Your task to perform on an android device: install app "Nova Launcher" Image 0: 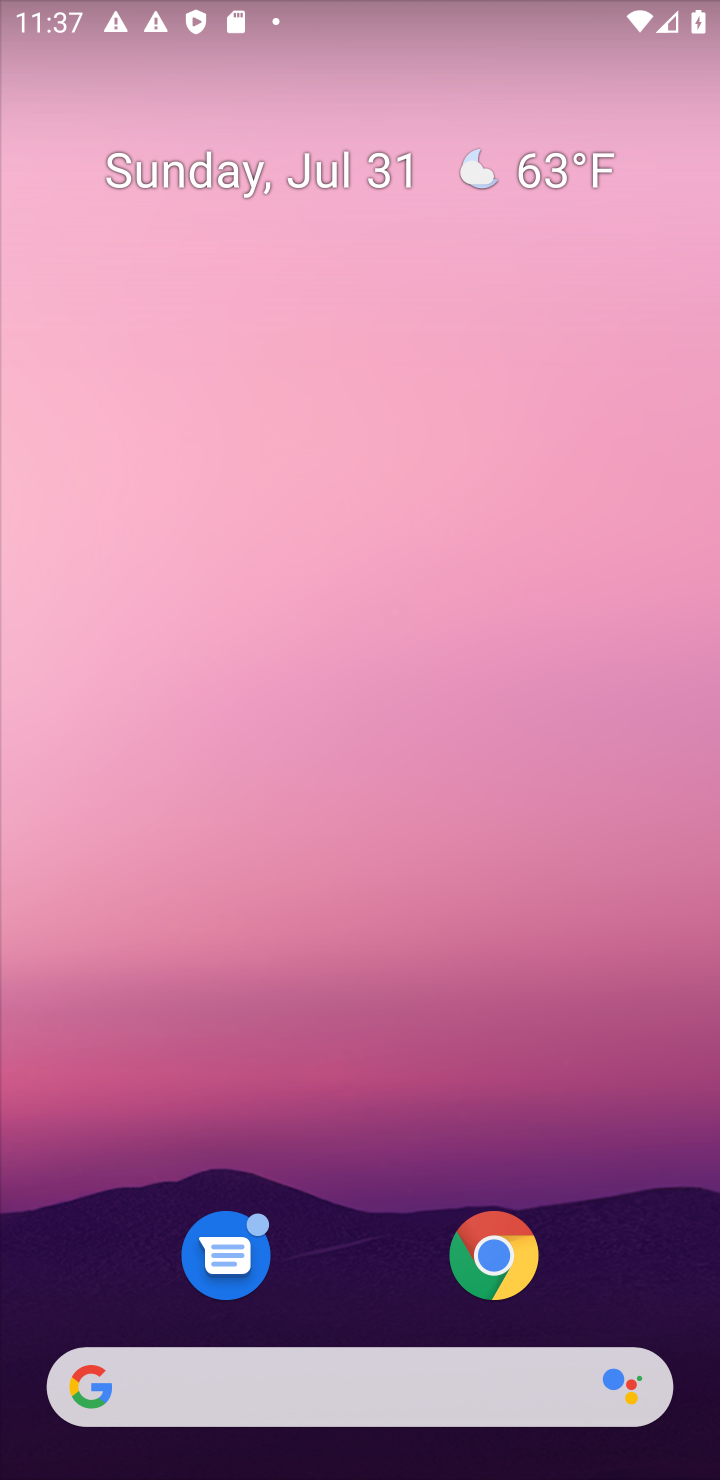
Step 0: drag from (632, 1129) to (588, 281)
Your task to perform on an android device: install app "Nova Launcher" Image 1: 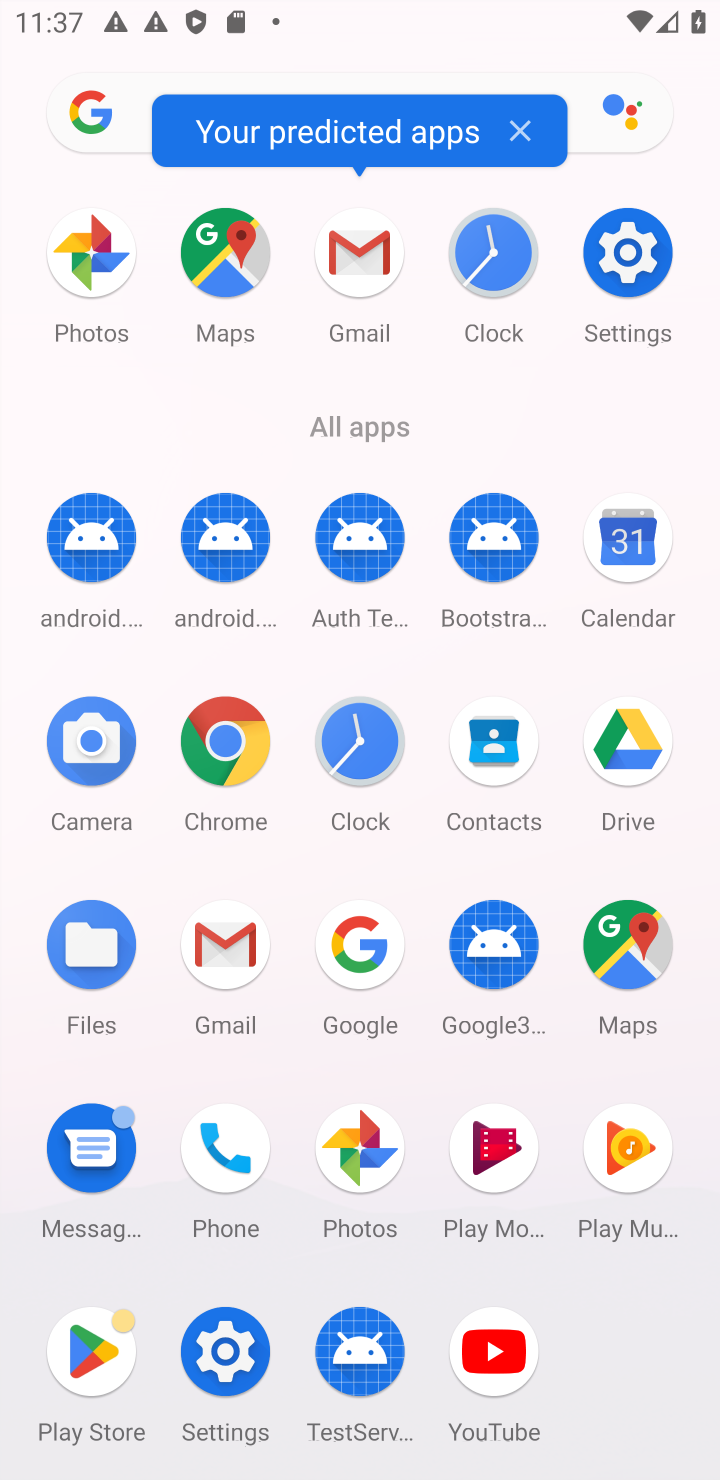
Step 1: click (86, 1351)
Your task to perform on an android device: install app "Nova Launcher" Image 2: 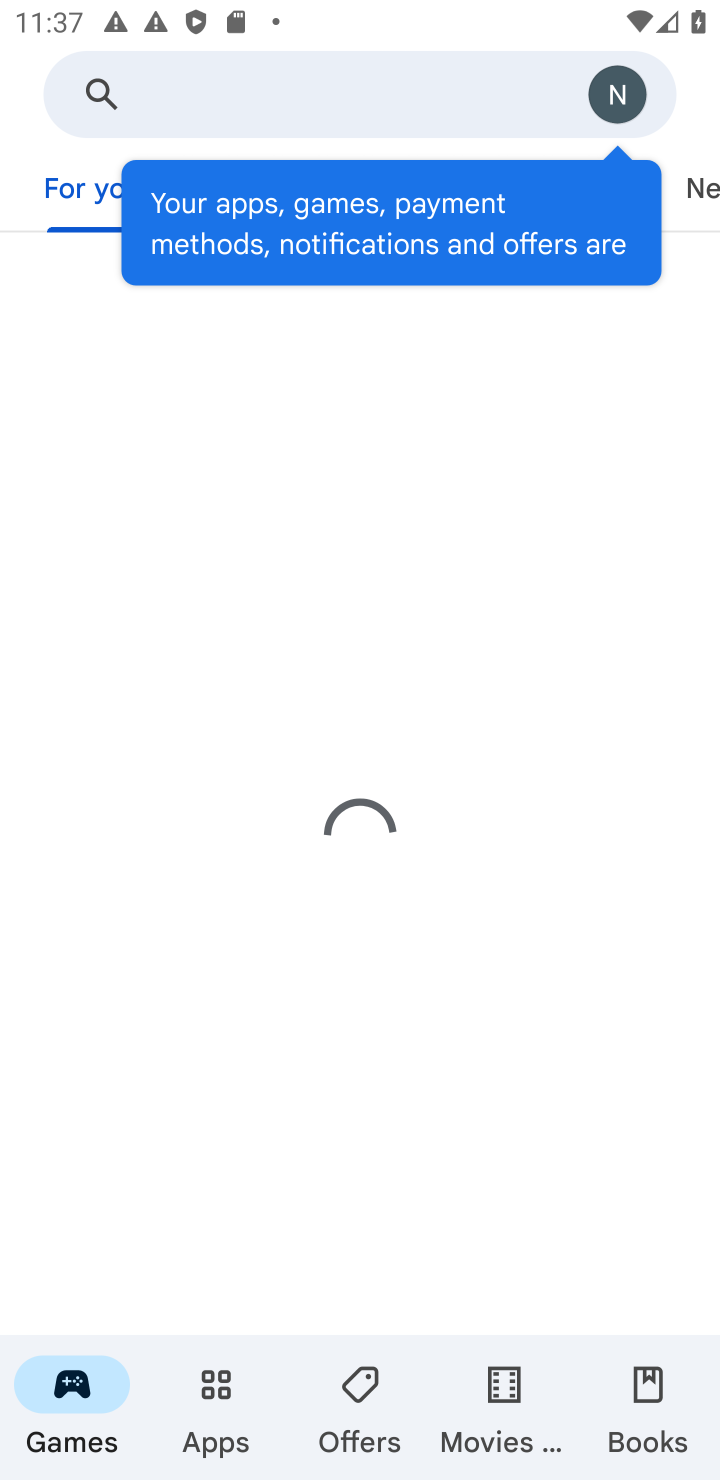
Step 2: click (359, 91)
Your task to perform on an android device: install app "Nova Launcher" Image 3: 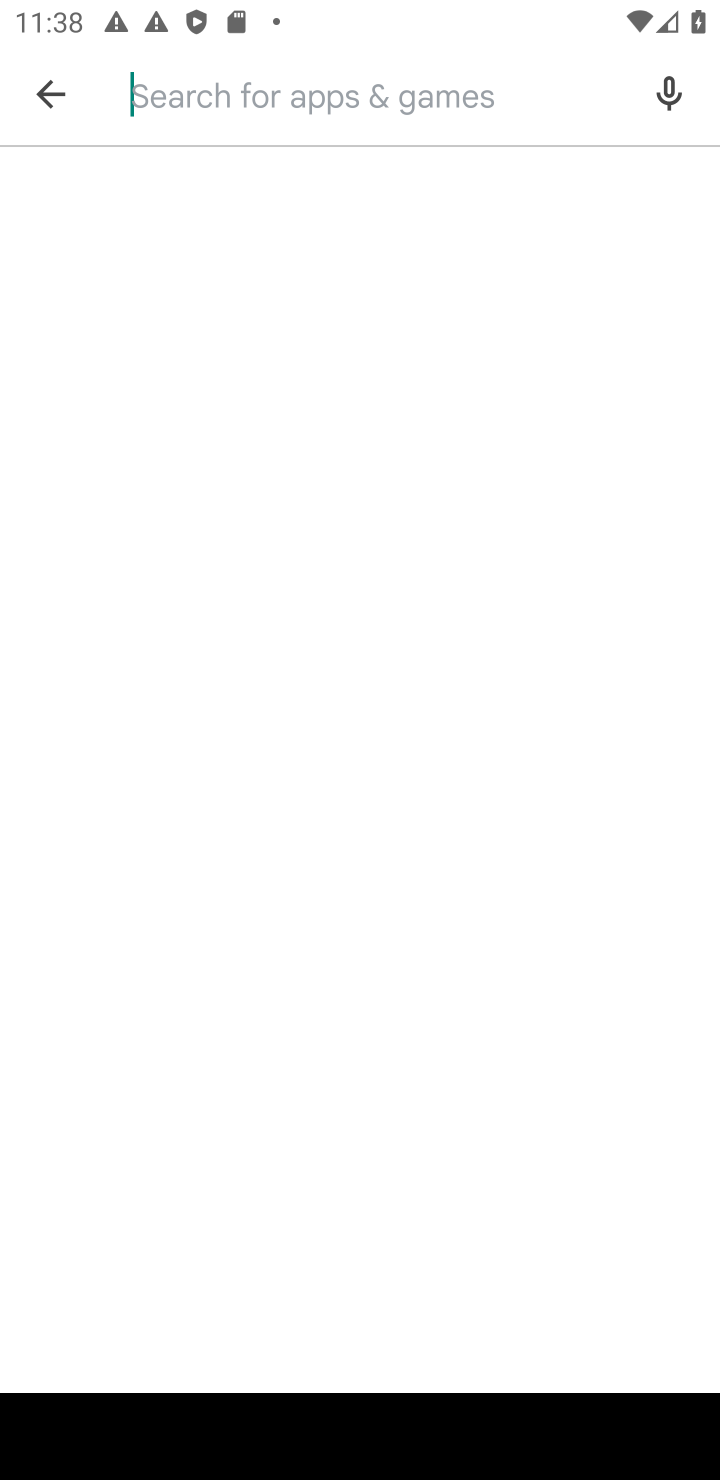
Step 3: type "nova launcher"
Your task to perform on an android device: install app "Nova Launcher" Image 4: 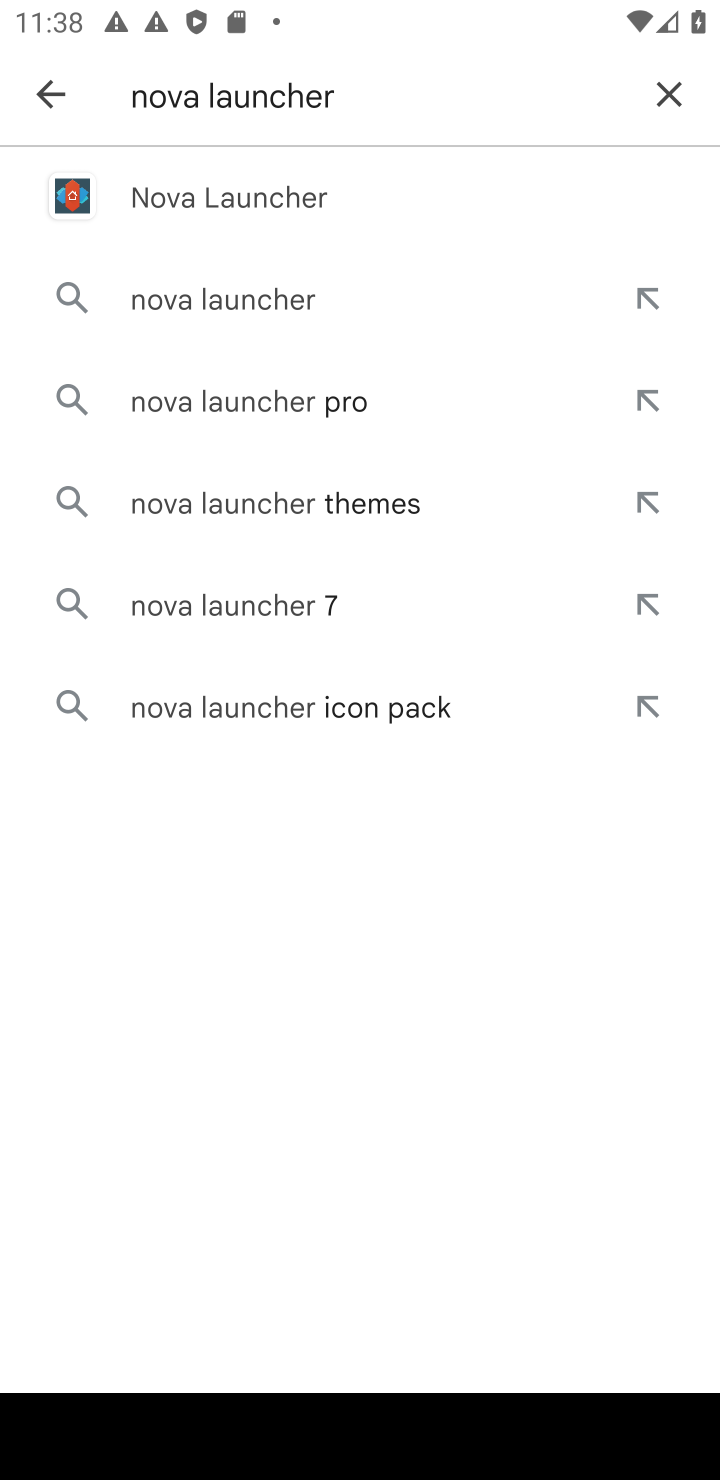
Step 4: click (457, 190)
Your task to perform on an android device: install app "Nova Launcher" Image 5: 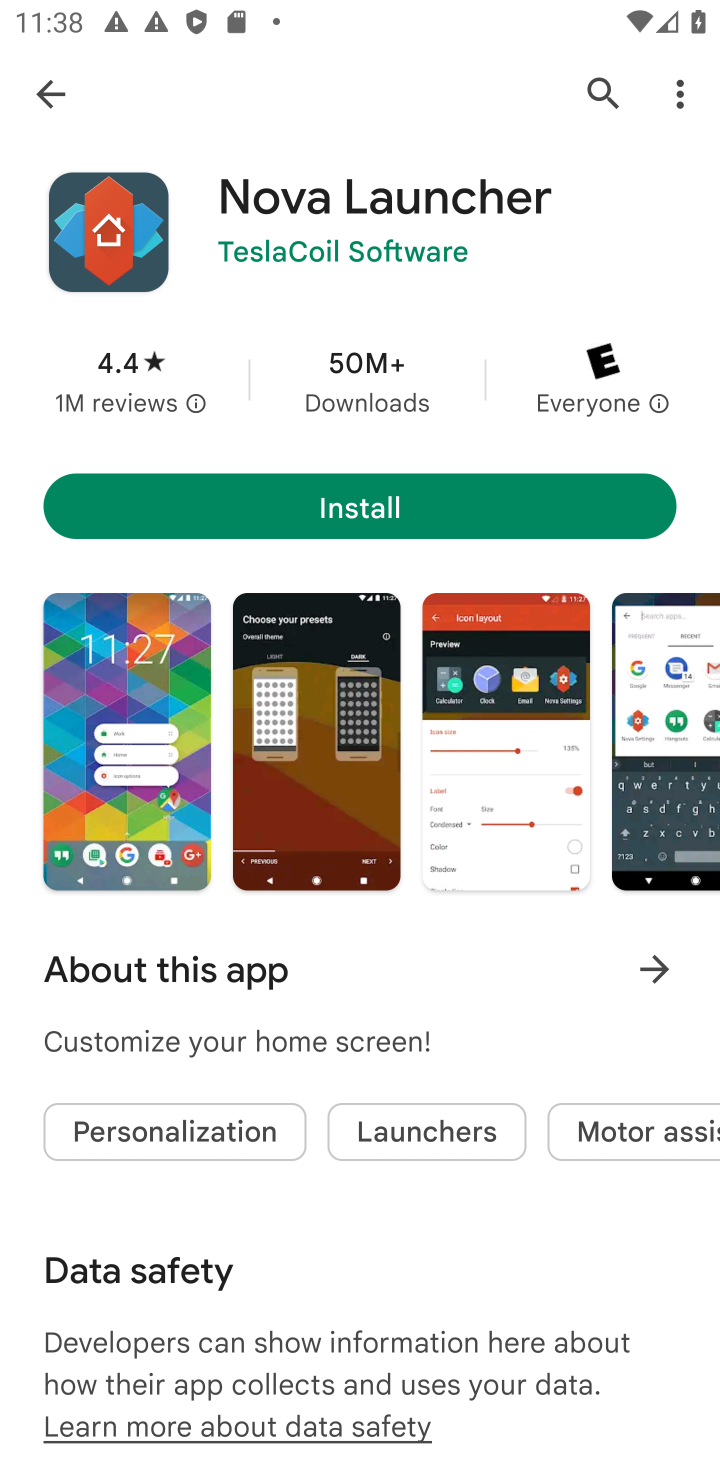
Step 5: click (485, 508)
Your task to perform on an android device: install app "Nova Launcher" Image 6: 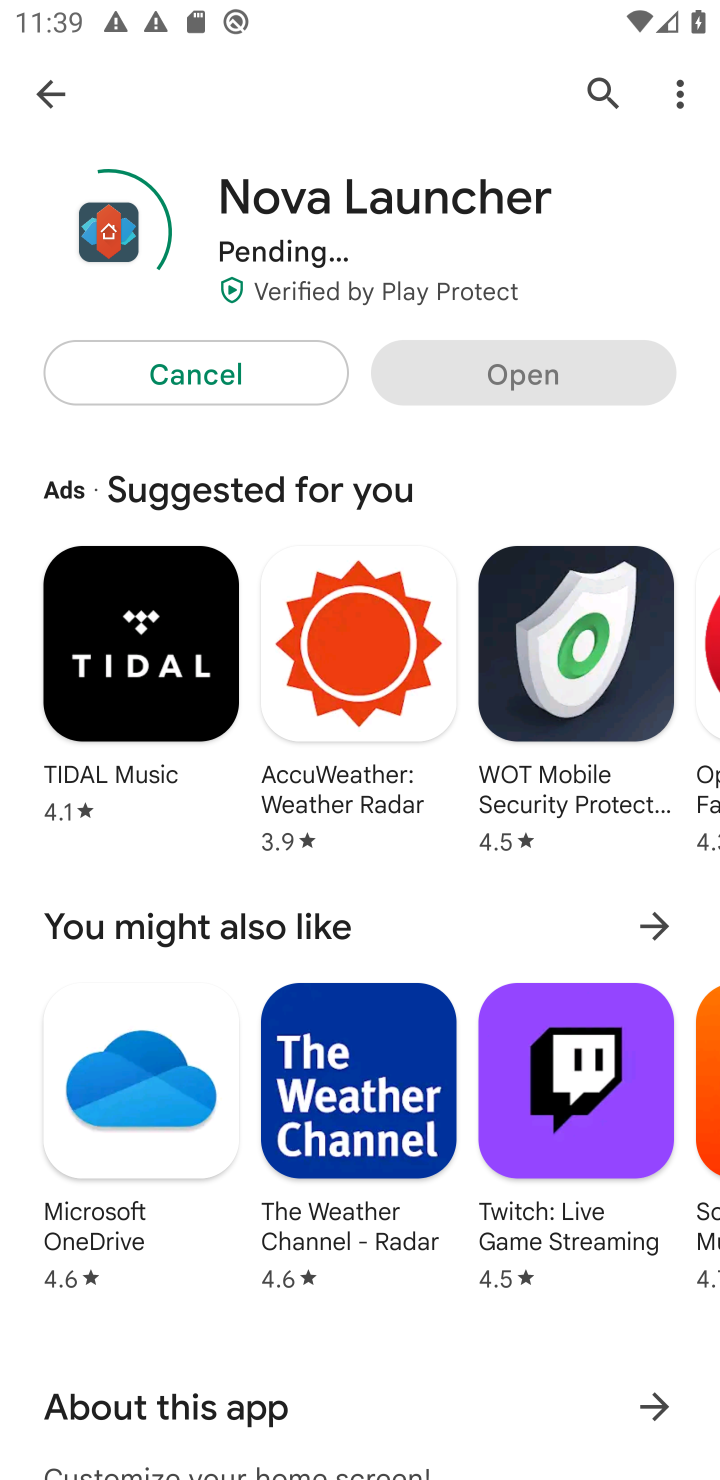
Step 6: click (60, 82)
Your task to perform on an android device: install app "Nova Launcher" Image 7: 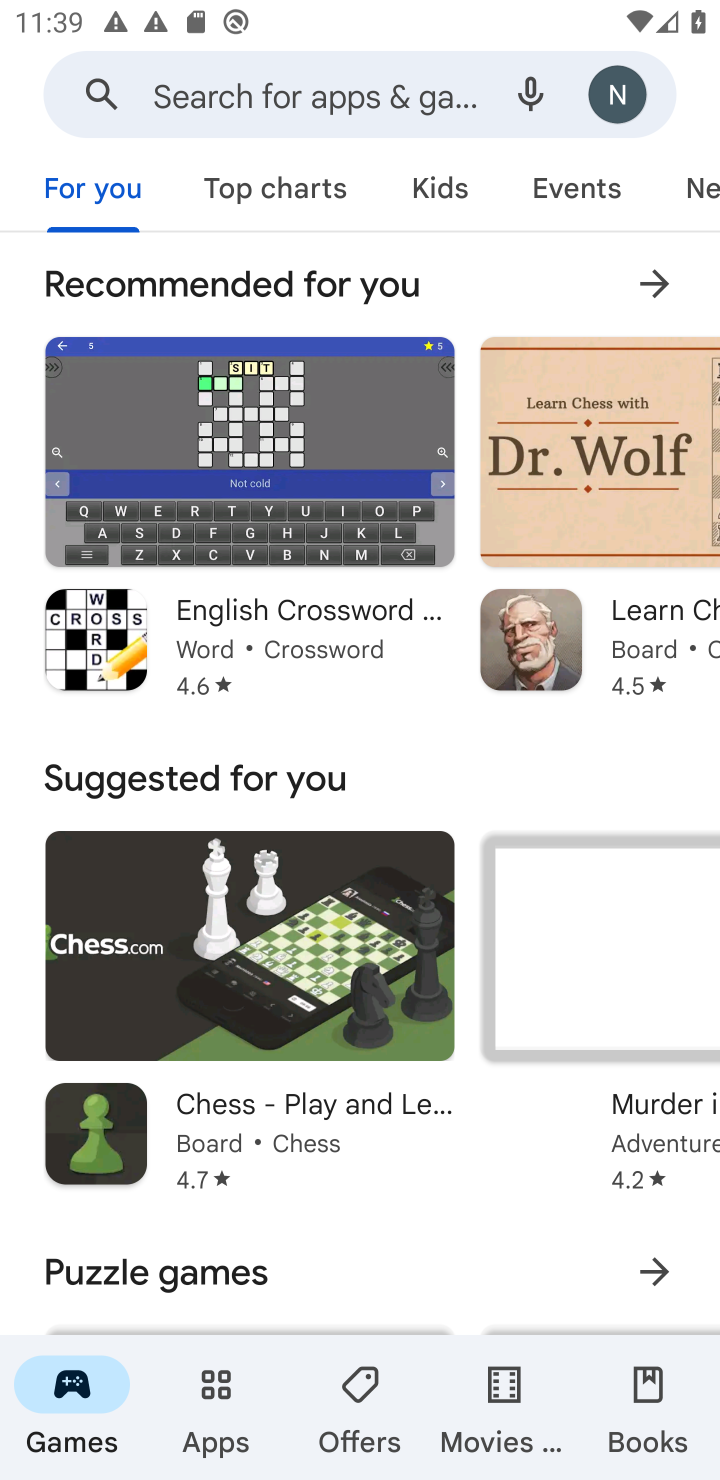
Step 7: click (618, 92)
Your task to perform on an android device: install app "Nova Launcher" Image 8: 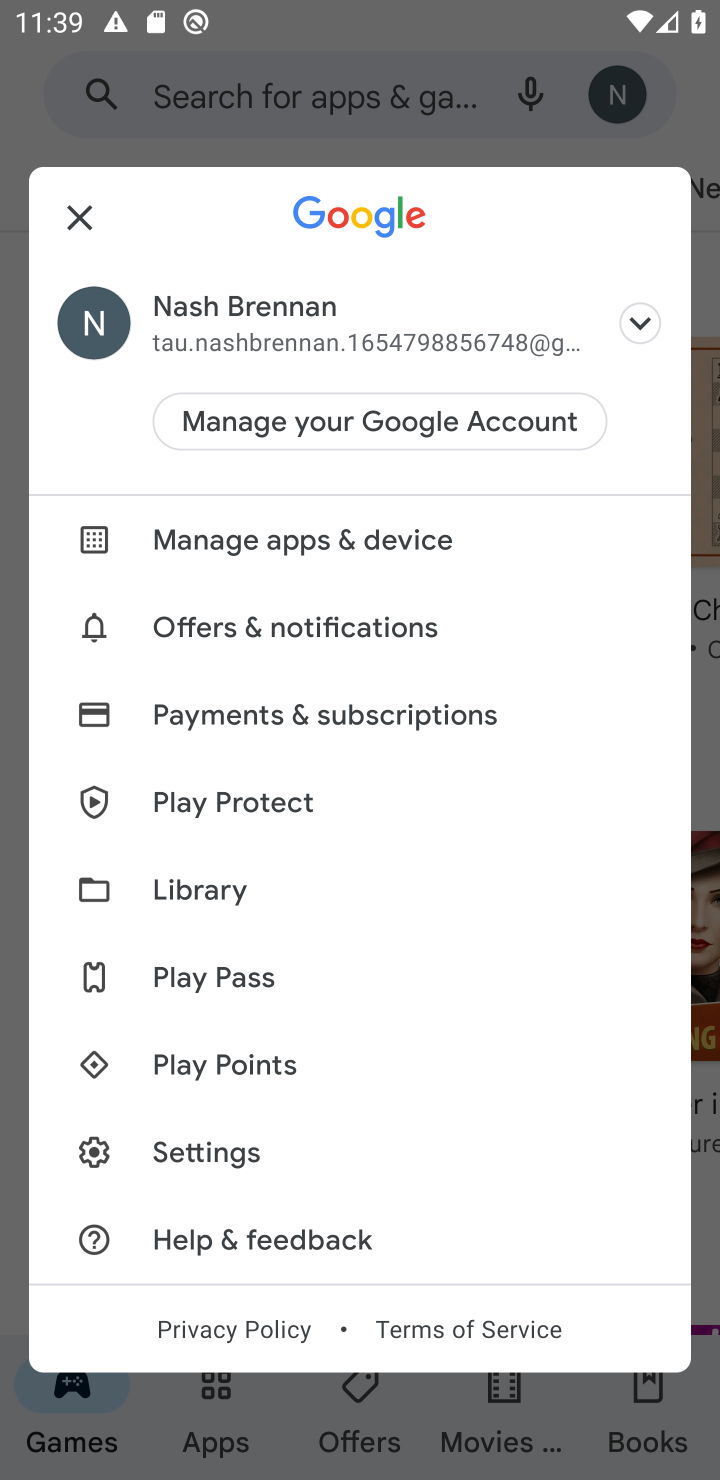
Step 8: click (254, 524)
Your task to perform on an android device: install app "Nova Launcher" Image 9: 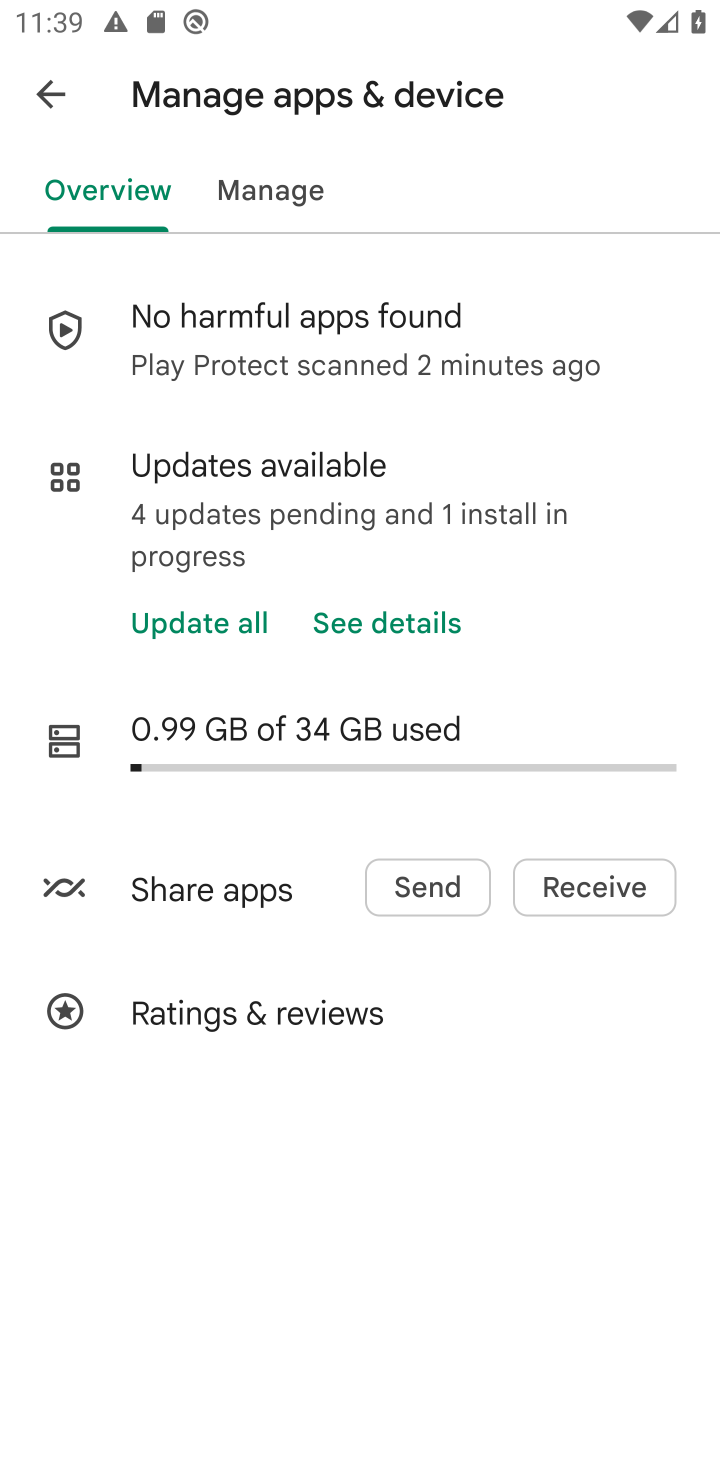
Step 9: click (436, 519)
Your task to perform on an android device: install app "Nova Launcher" Image 10: 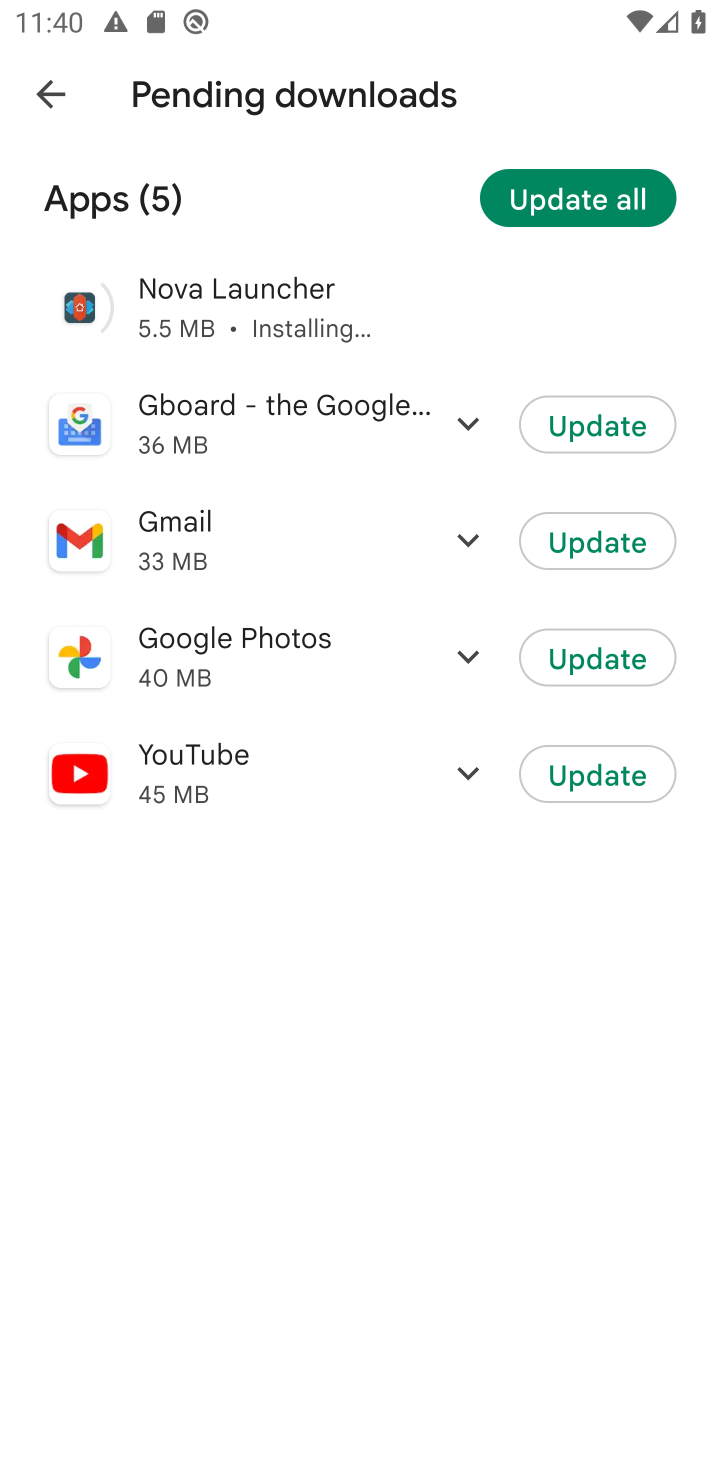
Step 10: task complete